Your task to perform on an android device: search for starred emails in the gmail app Image 0: 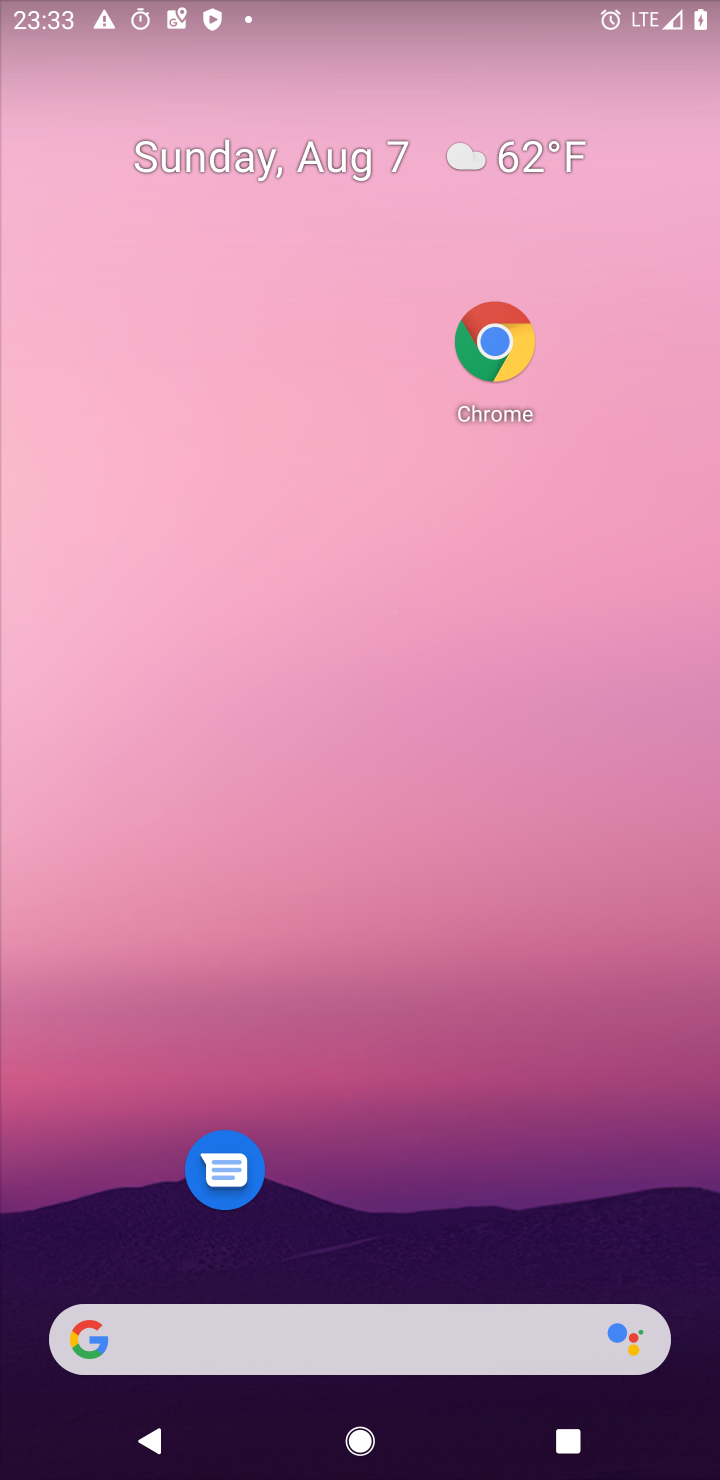
Step 0: drag from (436, 1334) to (389, 157)
Your task to perform on an android device: search for starred emails in the gmail app Image 1: 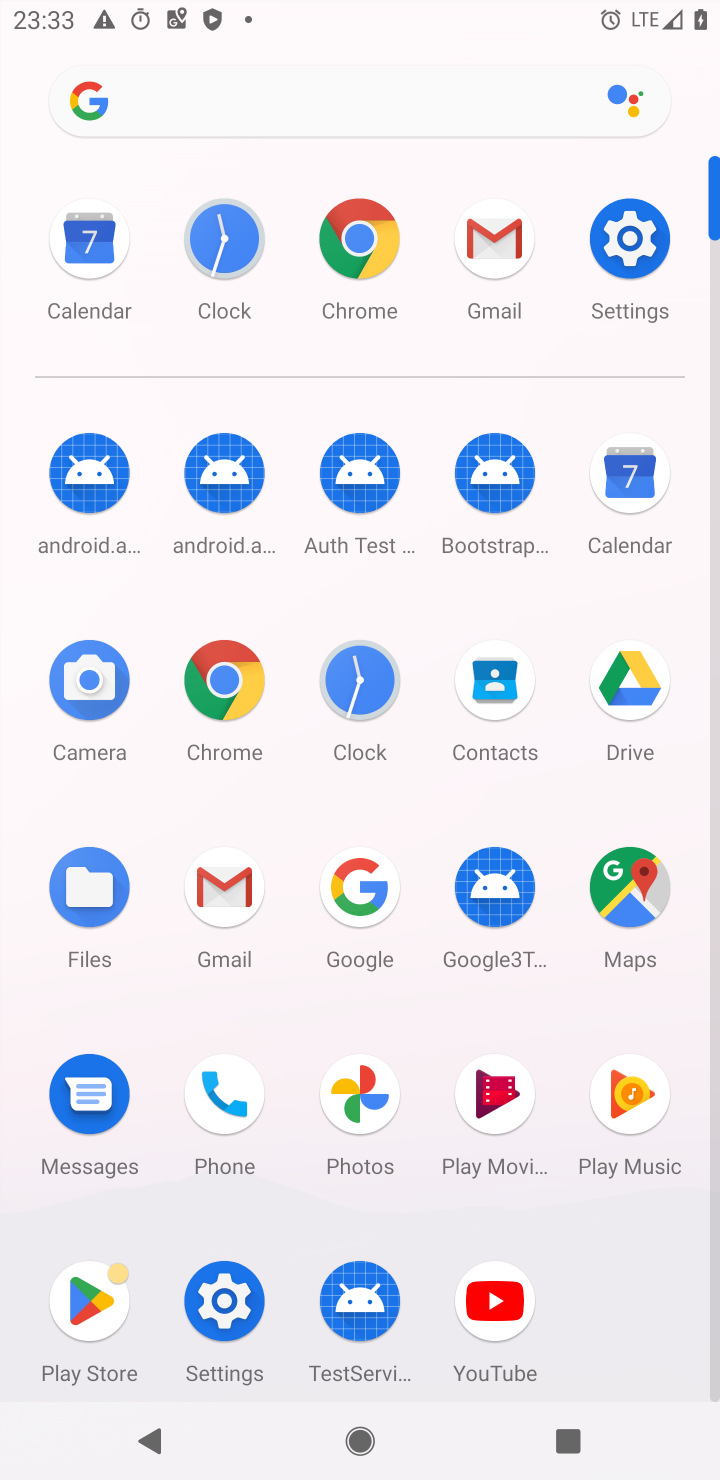
Step 1: click (209, 921)
Your task to perform on an android device: search for starred emails in the gmail app Image 2: 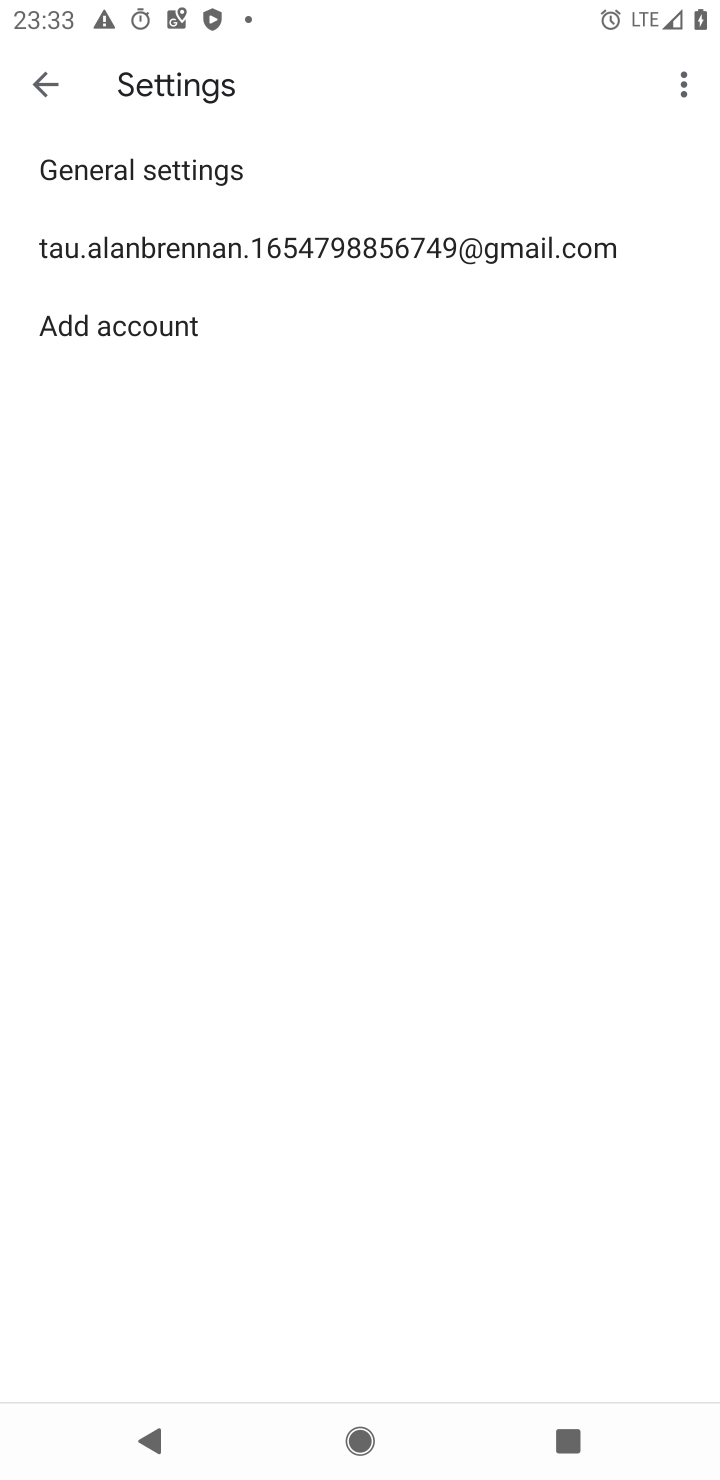
Step 2: press back button
Your task to perform on an android device: search for starred emails in the gmail app Image 3: 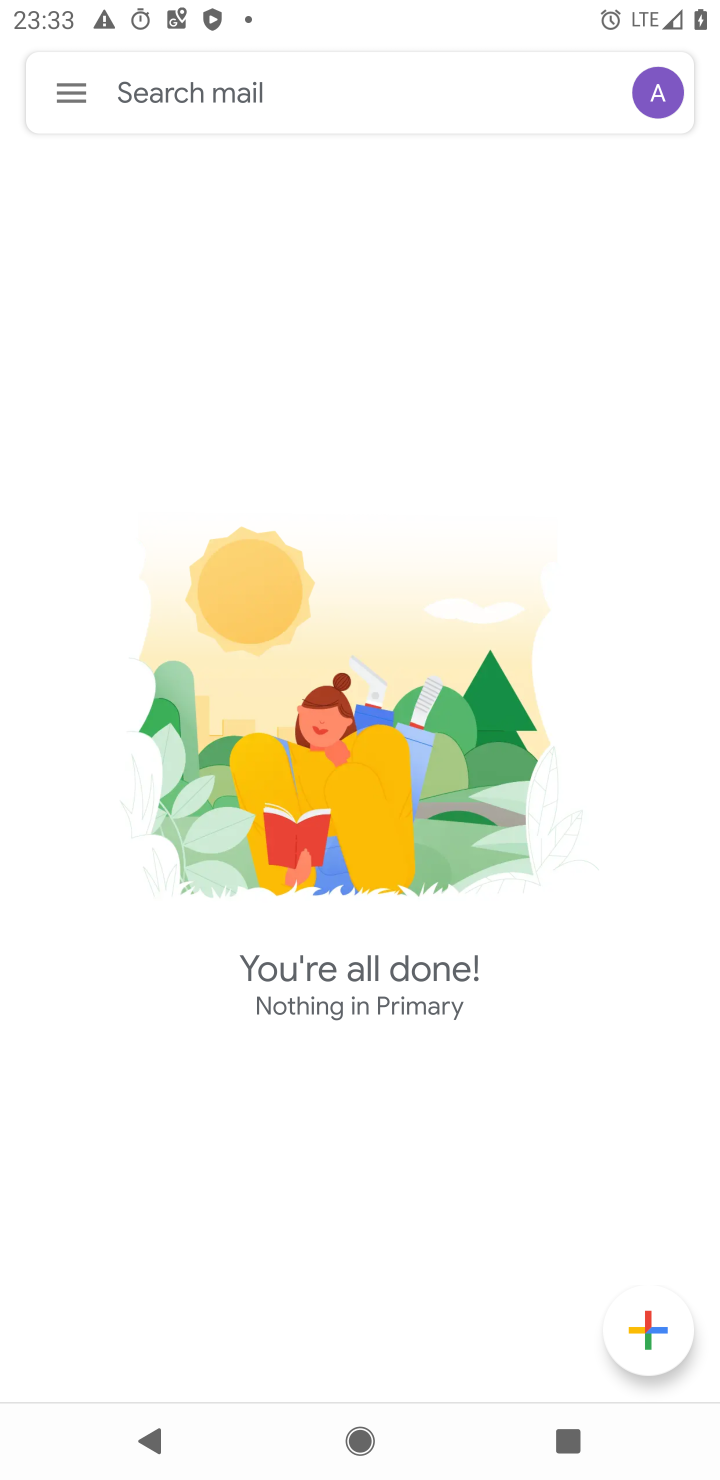
Step 3: click (70, 85)
Your task to perform on an android device: search for starred emails in the gmail app Image 4: 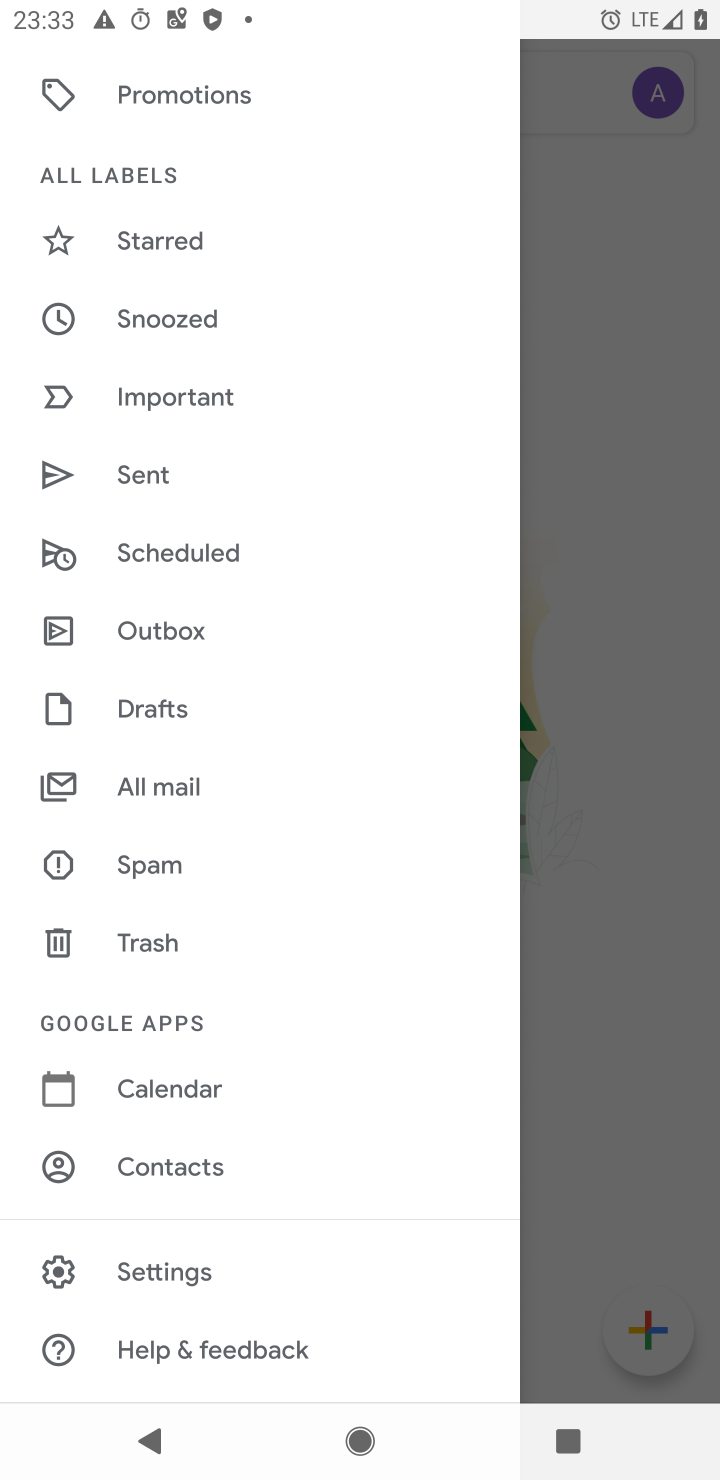
Step 4: click (170, 253)
Your task to perform on an android device: search for starred emails in the gmail app Image 5: 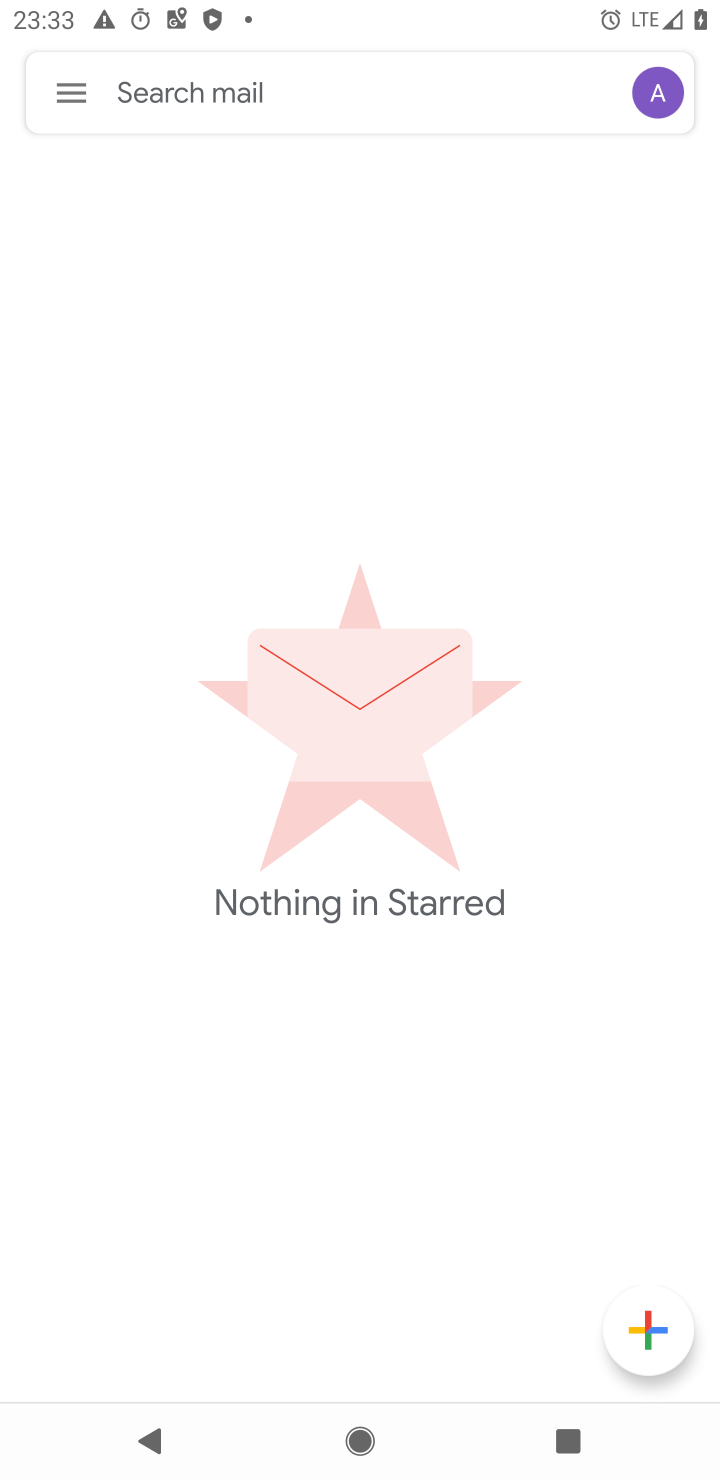
Step 5: task complete